Your task to perform on an android device: Do I have any events tomorrow? Image 0: 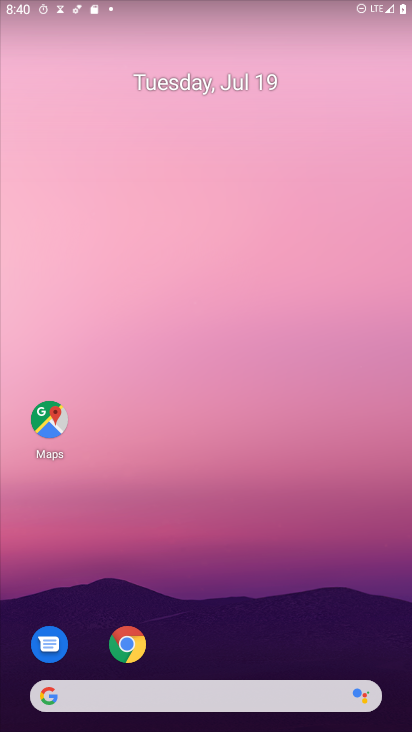
Step 0: click (93, 695)
Your task to perform on an android device: Do I have any events tomorrow? Image 1: 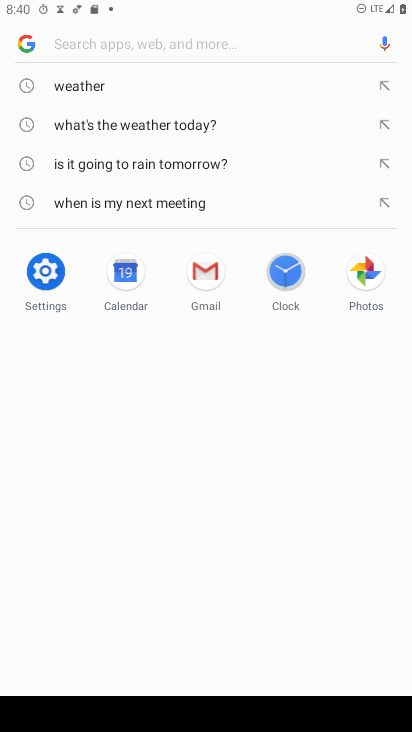
Step 1: type "Do I have any events tomorrow?"
Your task to perform on an android device: Do I have any events tomorrow? Image 2: 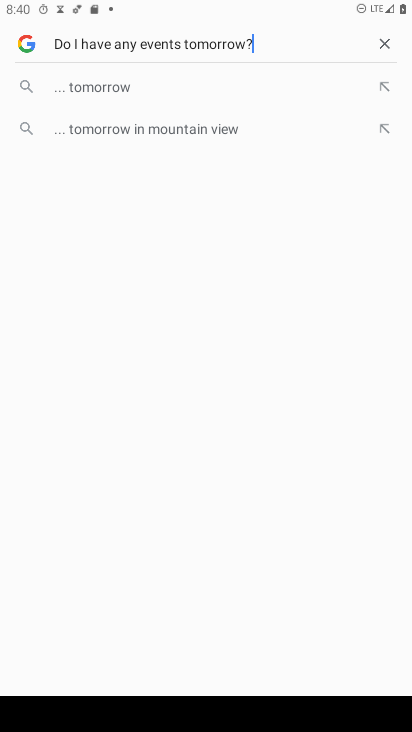
Step 2: type ""
Your task to perform on an android device: Do I have any events tomorrow? Image 3: 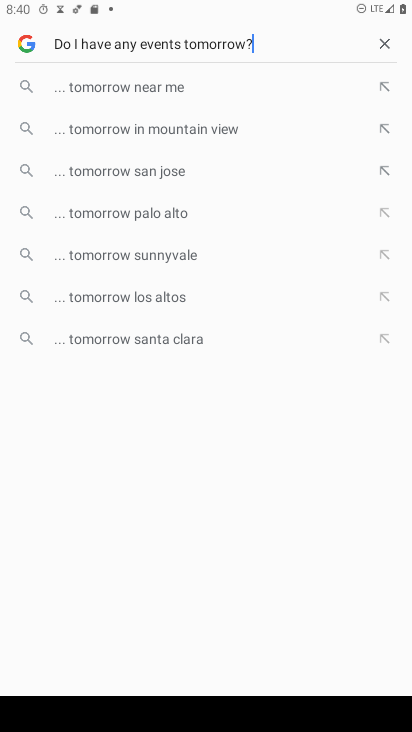
Step 3: type ""
Your task to perform on an android device: Do I have any events tomorrow? Image 4: 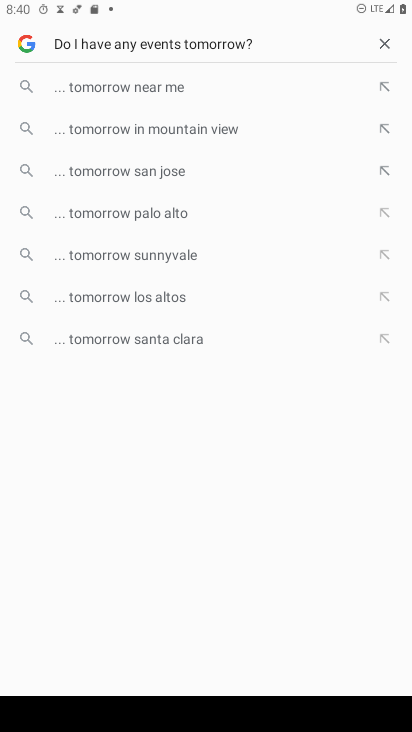
Step 4: task complete